Your task to perform on an android device: Open settings Image 0: 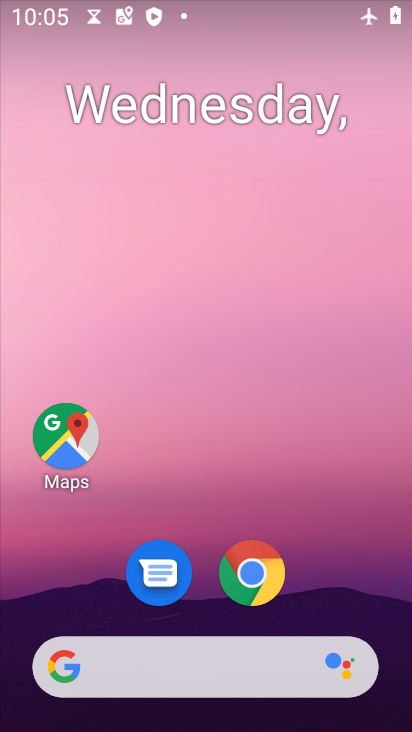
Step 0: drag from (311, 578) to (308, 232)
Your task to perform on an android device: Open settings Image 1: 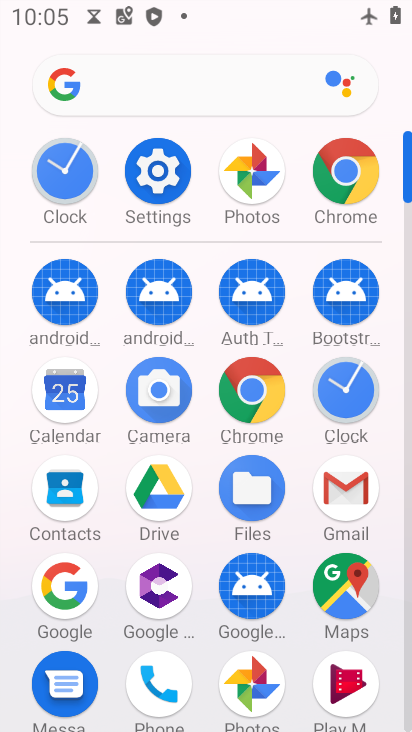
Step 1: click (154, 164)
Your task to perform on an android device: Open settings Image 2: 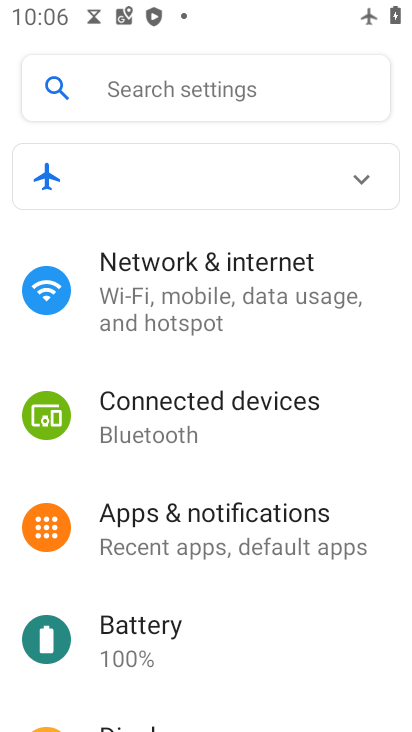
Step 2: task complete